Your task to perform on an android device: Open Google Chrome Image 0: 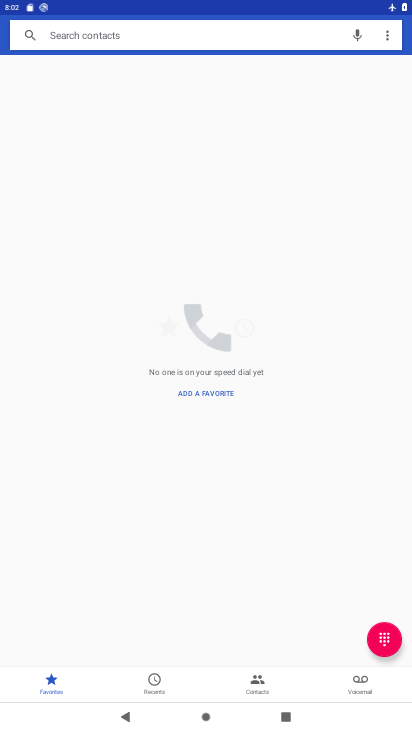
Step 0: press home button
Your task to perform on an android device: Open Google Chrome Image 1: 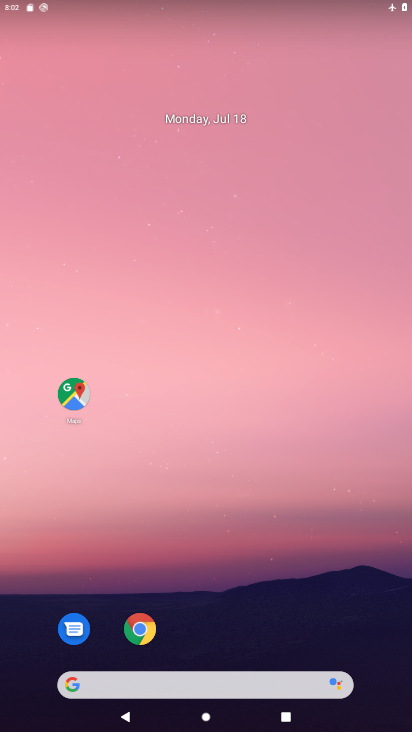
Step 1: click (142, 635)
Your task to perform on an android device: Open Google Chrome Image 2: 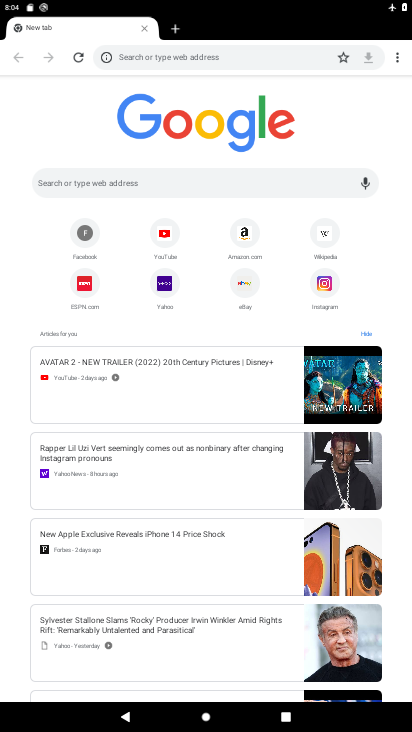
Step 2: task complete